Your task to perform on an android device: change the clock style Image 0: 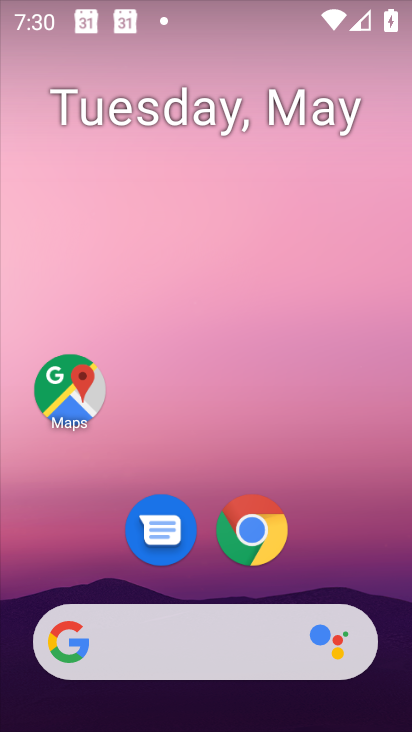
Step 0: drag from (125, 727) to (157, 19)
Your task to perform on an android device: change the clock style Image 1: 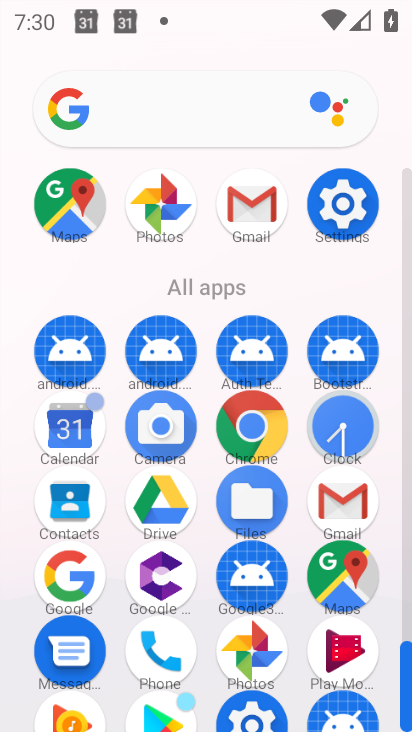
Step 1: click (328, 415)
Your task to perform on an android device: change the clock style Image 2: 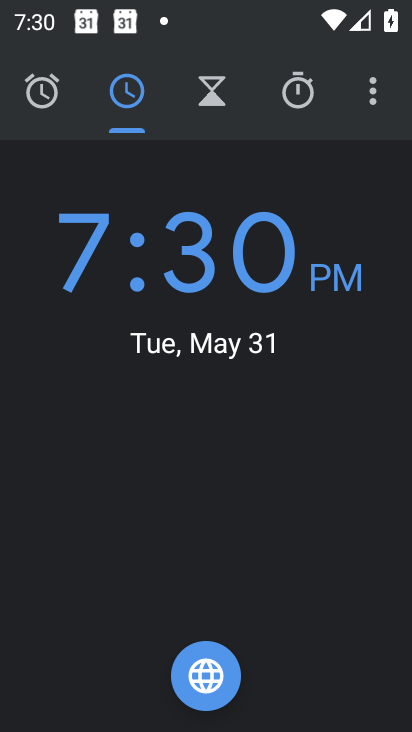
Step 2: click (371, 93)
Your task to perform on an android device: change the clock style Image 3: 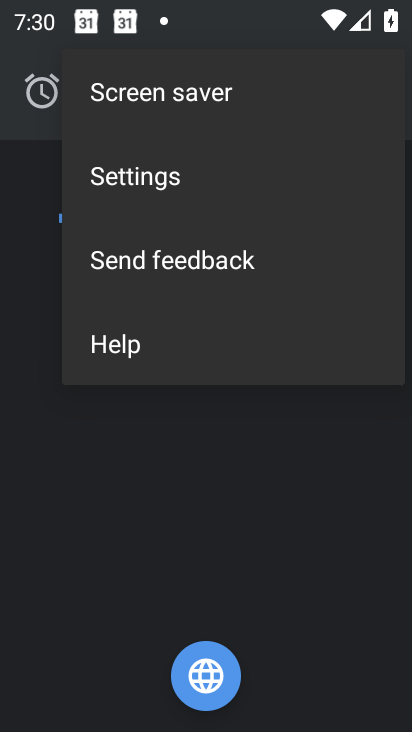
Step 3: click (188, 191)
Your task to perform on an android device: change the clock style Image 4: 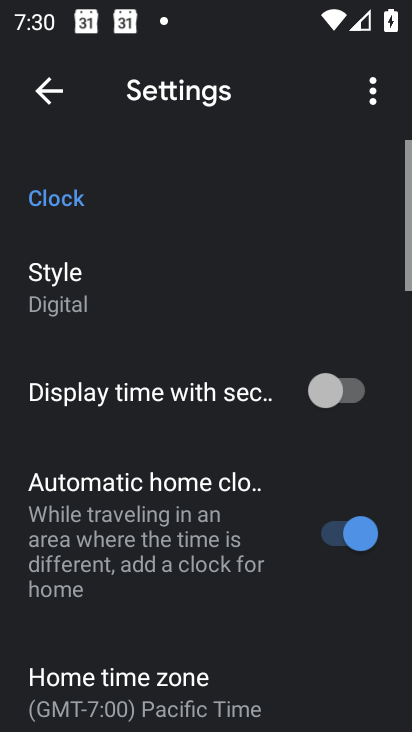
Step 4: click (67, 286)
Your task to perform on an android device: change the clock style Image 5: 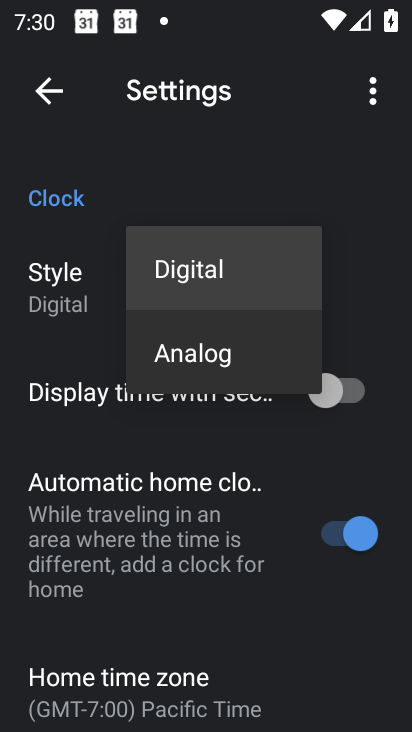
Step 5: click (188, 358)
Your task to perform on an android device: change the clock style Image 6: 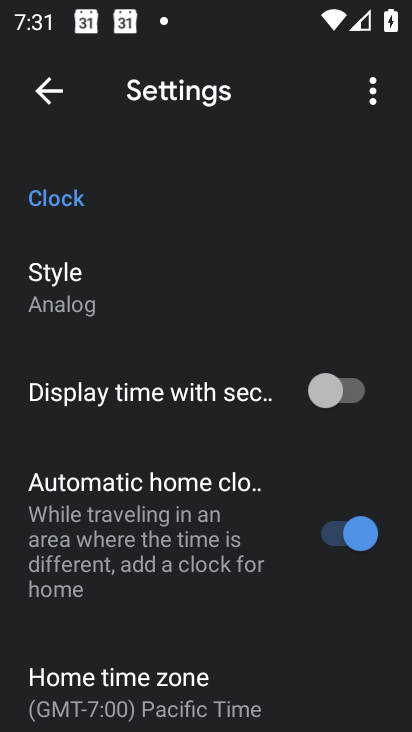
Step 6: task complete